Your task to perform on an android device: change the clock display to digital Image 0: 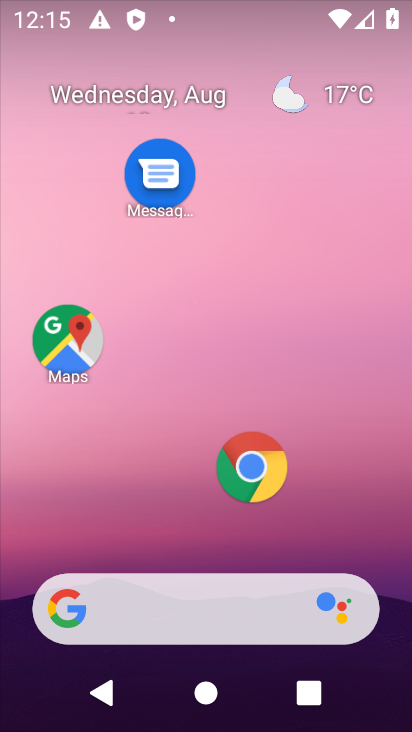
Step 0: drag from (144, 394) to (140, 85)
Your task to perform on an android device: change the clock display to digital Image 1: 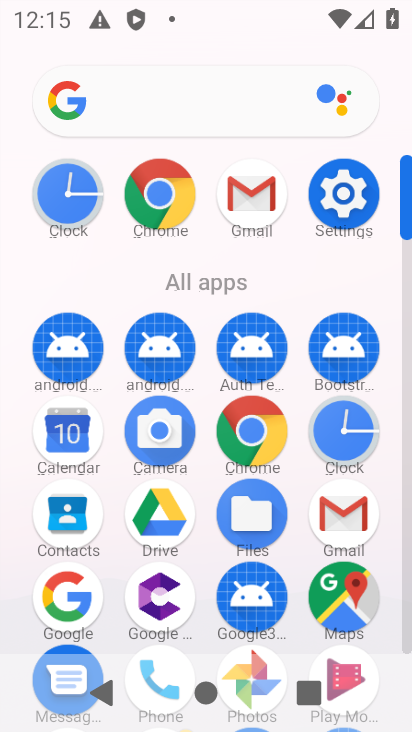
Step 1: click (350, 450)
Your task to perform on an android device: change the clock display to digital Image 2: 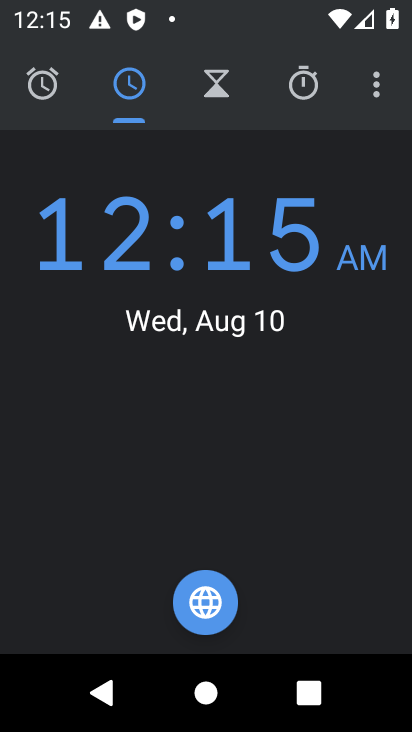
Step 2: click (383, 92)
Your task to perform on an android device: change the clock display to digital Image 3: 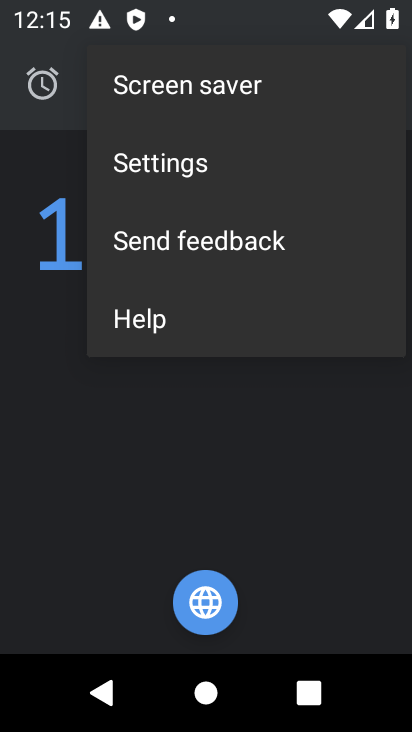
Step 3: click (204, 156)
Your task to perform on an android device: change the clock display to digital Image 4: 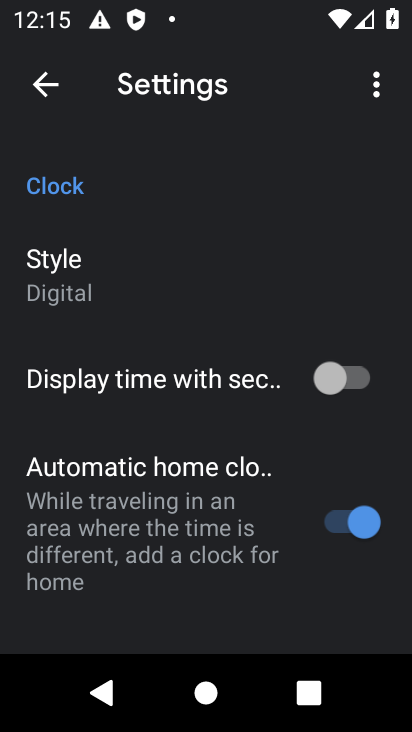
Step 4: task complete